Your task to perform on an android device: turn on improve location accuracy Image 0: 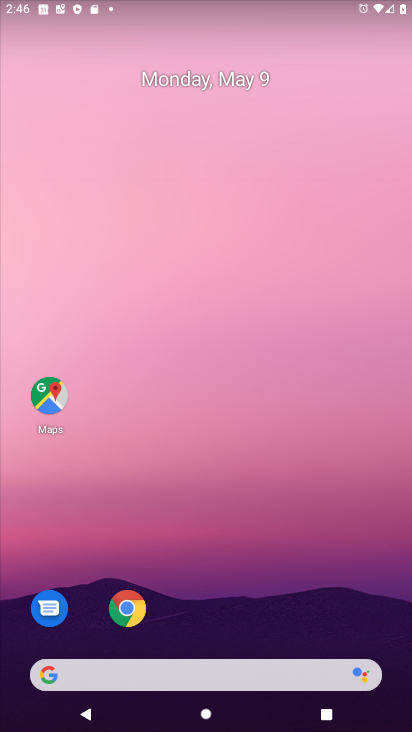
Step 0: drag from (229, 567) to (246, 69)
Your task to perform on an android device: turn on improve location accuracy Image 1: 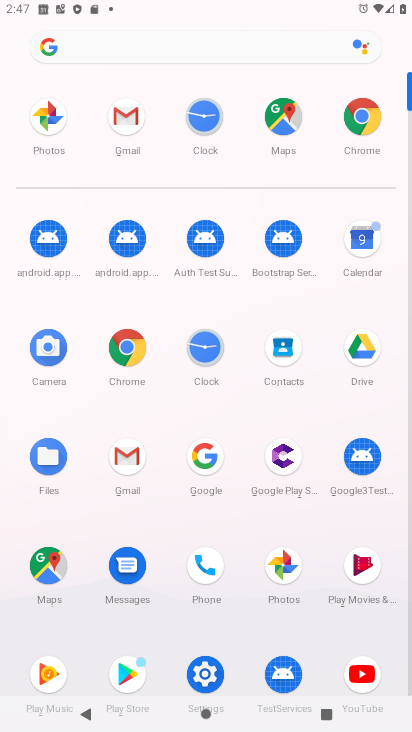
Step 1: click (208, 677)
Your task to perform on an android device: turn on improve location accuracy Image 2: 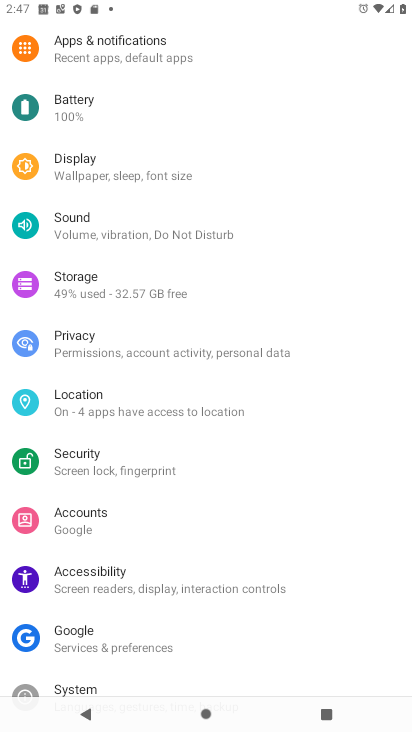
Step 2: click (153, 397)
Your task to perform on an android device: turn on improve location accuracy Image 3: 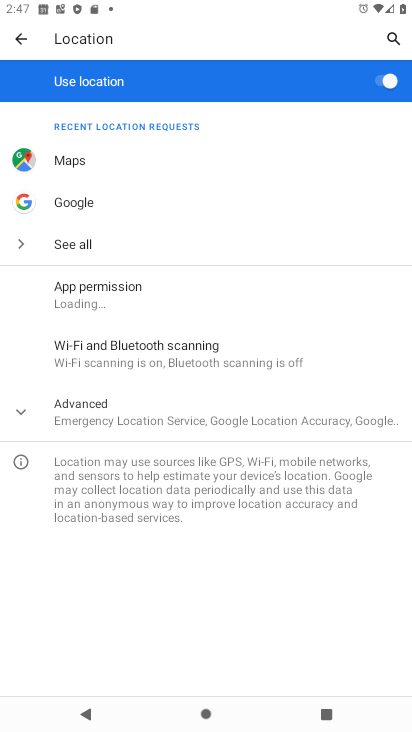
Step 3: click (182, 413)
Your task to perform on an android device: turn on improve location accuracy Image 4: 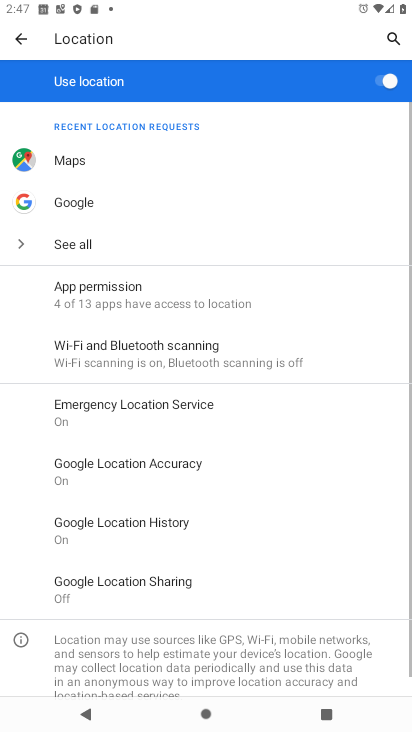
Step 4: click (219, 448)
Your task to perform on an android device: turn on improve location accuracy Image 5: 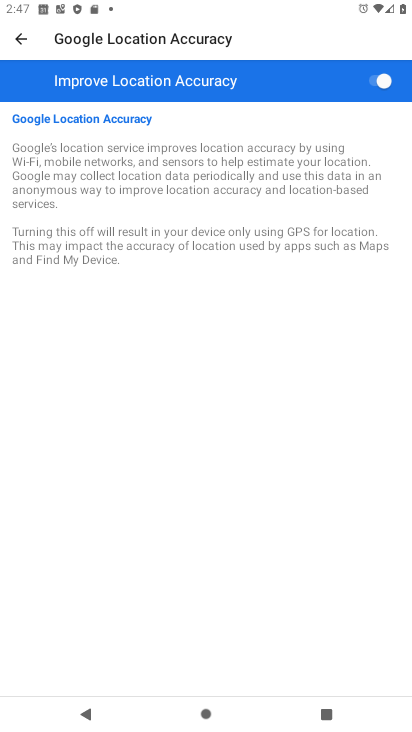
Step 5: task complete